Your task to perform on an android device: delete a single message in the gmail app Image 0: 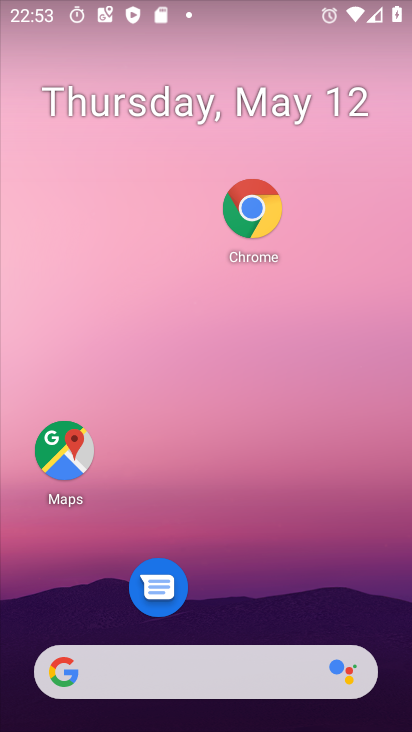
Step 0: drag from (322, 602) to (364, 240)
Your task to perform on an android device: delete a single message in the gmail app Image 1: 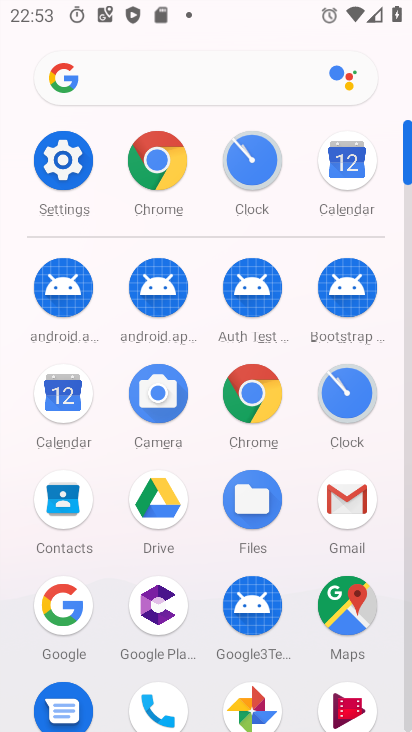
Step 1: click (362, 507)
Your task to perform on an android device: delete a single message in the gmail app Image 2: 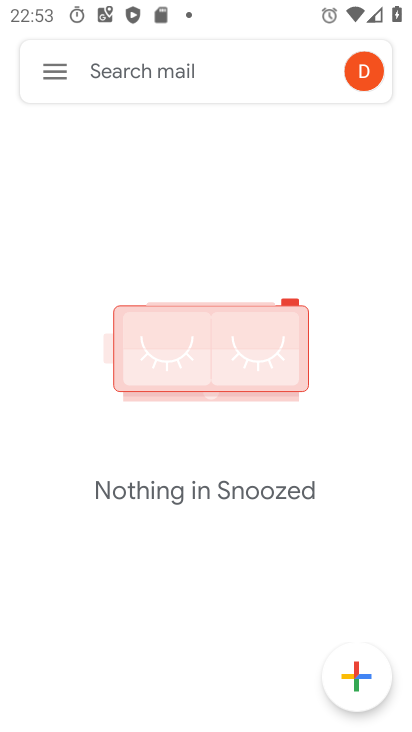
Step 2: click (48, 75)
Your task to perform on an android device: delete a single message in the gmail app Image 3: 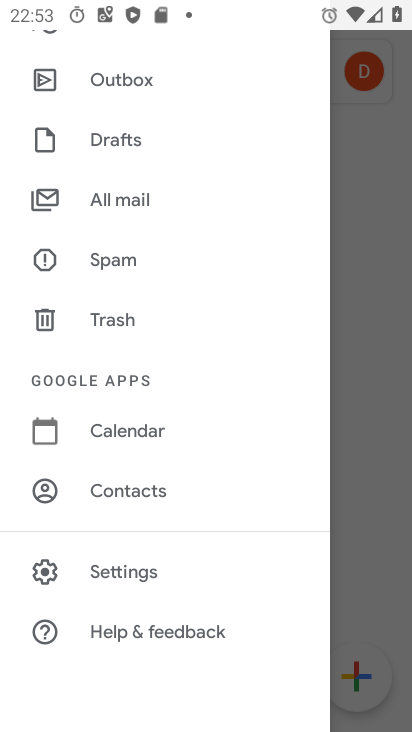
Step 3: click (130, 206)
Your task to perform on an android device: delete a single message in the gmail app Image 4: 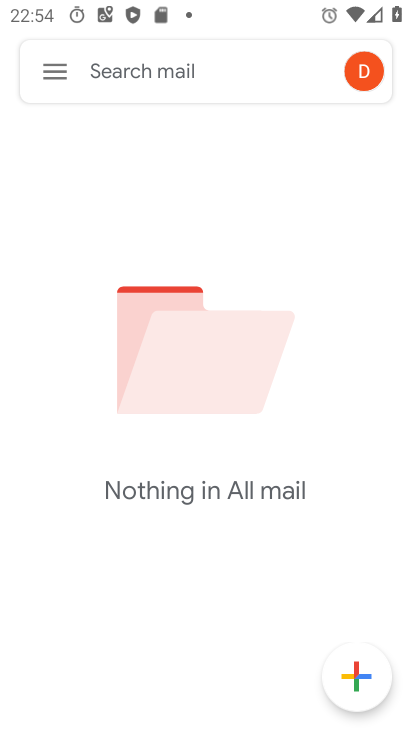
Step 4: task complete